Your task to perform on an android device: set an alarm Image 0: 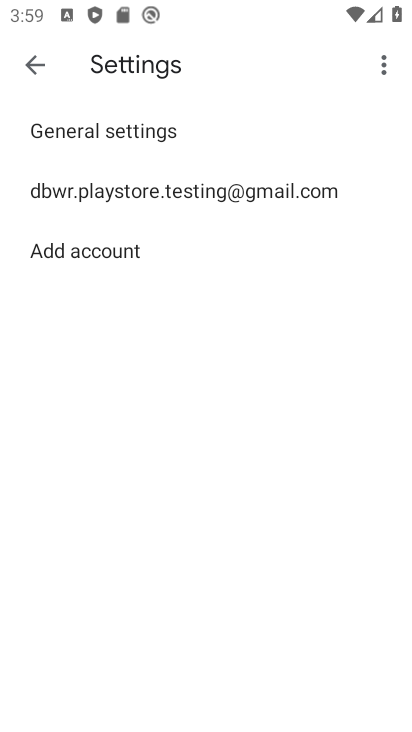
Step 0: press home button
Your task to perform on an android device: set an alarm Image 1: 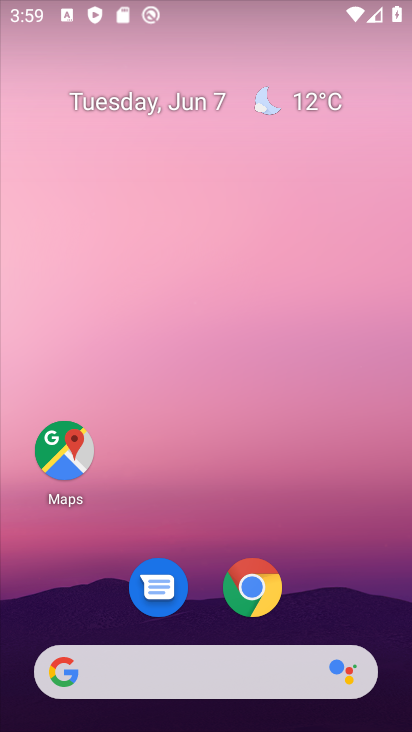
Step 1: drag from (260, 674) to (222, 137)
Your task to perform on an android device: set an alarm Image 2: 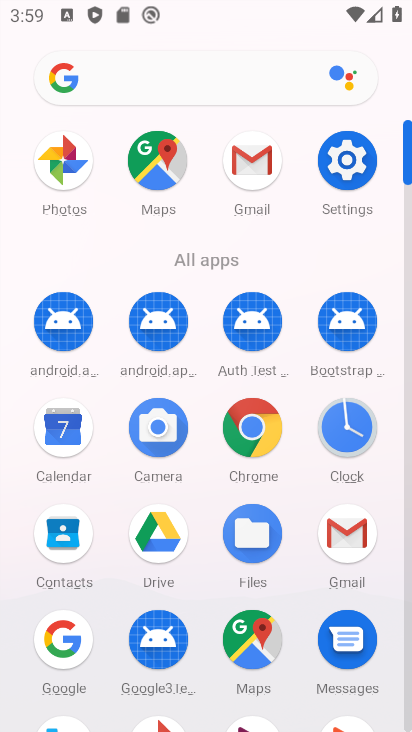
Step 2: click (352, 438)
Your task to perform on an android device: set an alarm Image 3: 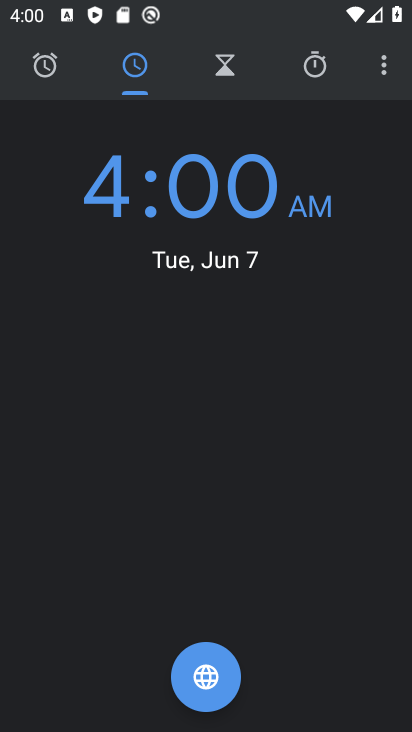
Step 3: click (306, 372)
Your task to perform on an android device: set an alarm Image 4: 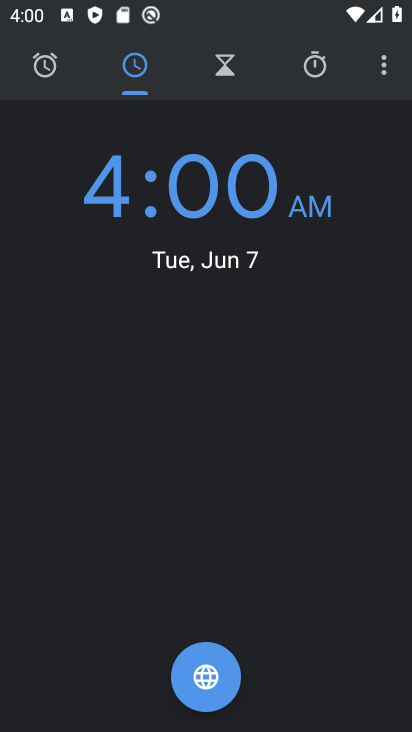
Step 4: click (57, 73)
Your task to perform on an android device: set an alarm Image 5: 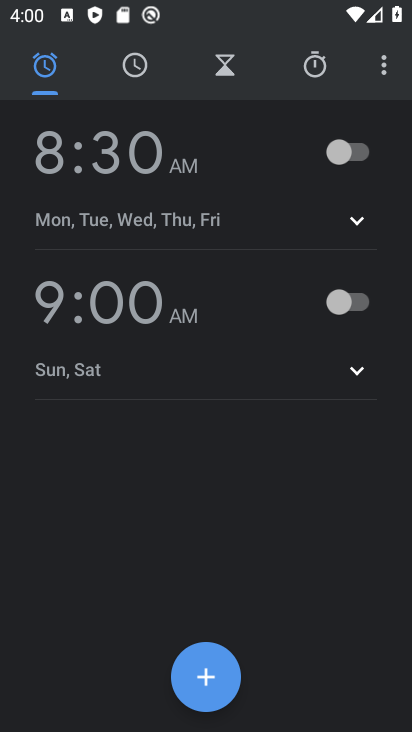
Step 5: click (193, 679)
Your task to perform on an android device: set an alarm Image 6: 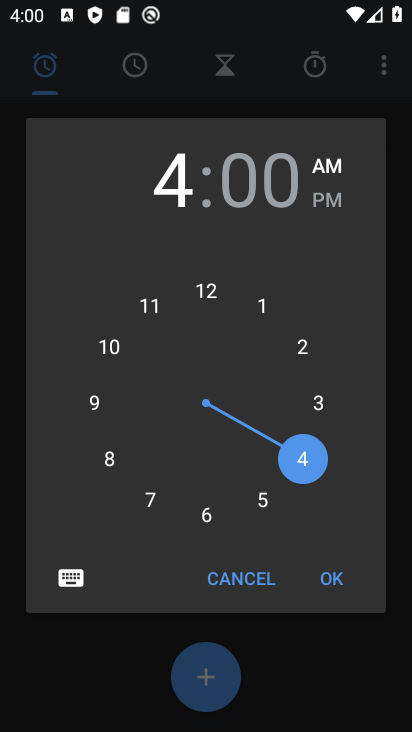
Step 6: click (327, 579)
Your task to perform on an android device: set an alarm Image 7: 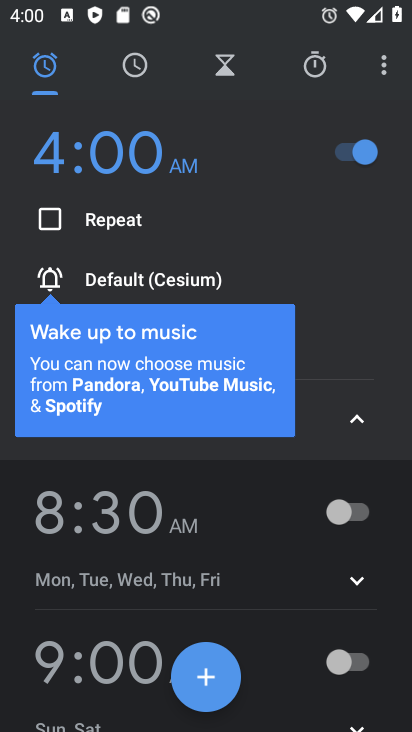
Step 7: task complete